Your task to perform on an android device: toggle improve location accuracy Image 0: 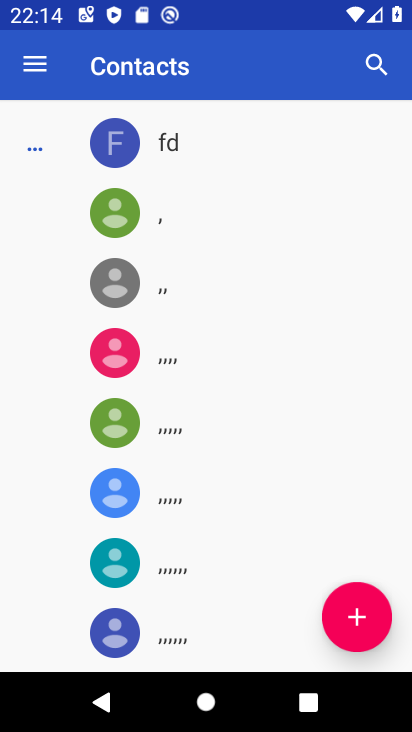
Step 0: press home button
Your task to perform on an android device: toggle improve location accuracy Image 1: 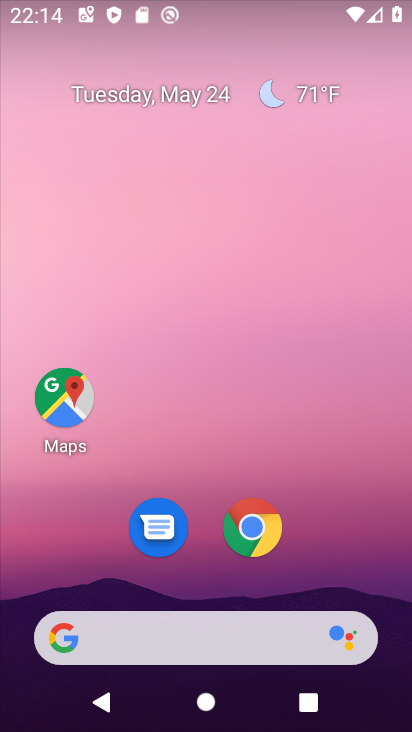
Step 1: drag from (187, 572) to (183, 15)
Your task to perform on an android device: toggle improve location accuracy Image 2: 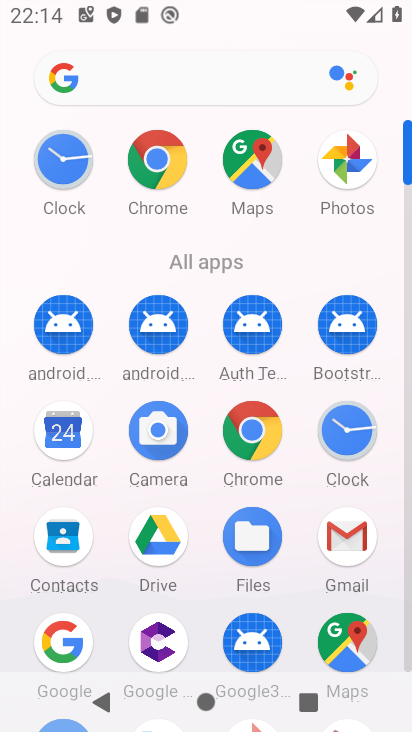
Step 2: drag from (289, 595) to (279, 142)
Your task to perform on an android device: toggle improve location accuracy Image 3: 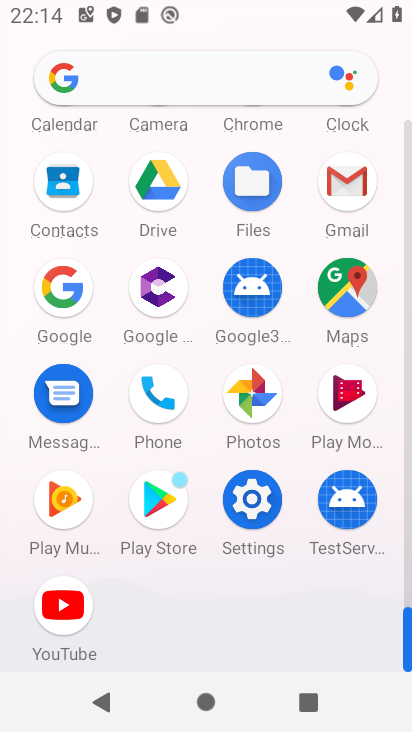
Step 3: click (243, 506)
Your task to perform on an android device: toggle improve location accuracy Image 4: 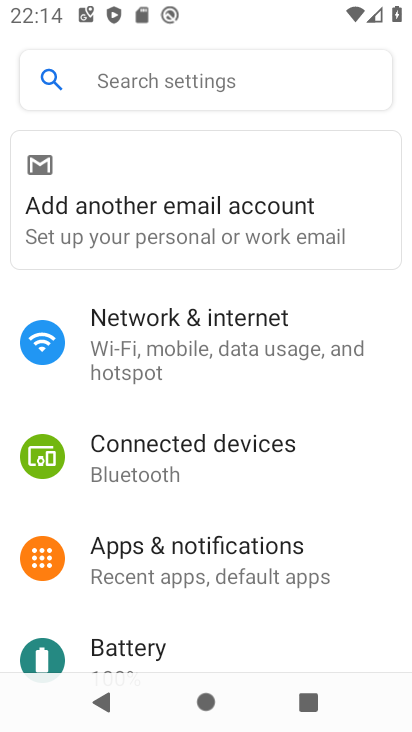
Step 4: drag from (215, 647) to (222, 207)
Your task to perform on an android device: toggle improve location accuracy Image 5: 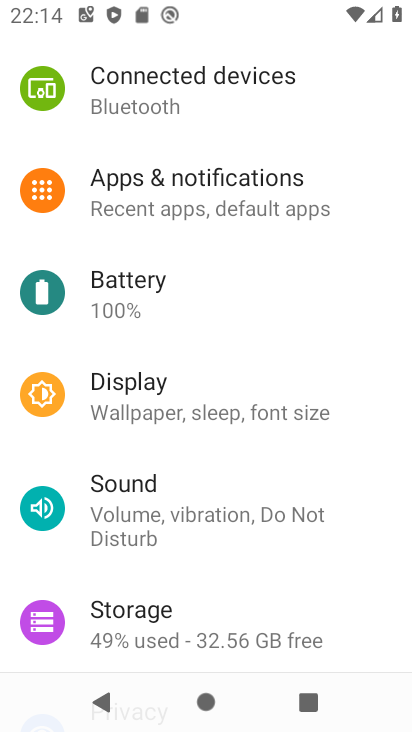
Step 5: drag from (298, 629) to (285, 166)
Your task to perform on an android device: toggle improve location accuracy Image 6: 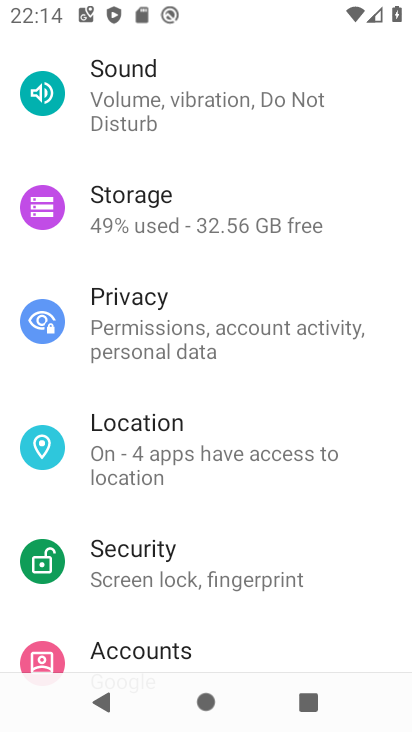
Step 6: click (282, 464)
Your task to perform on an android device: toggle improve location accuracy Image 7: 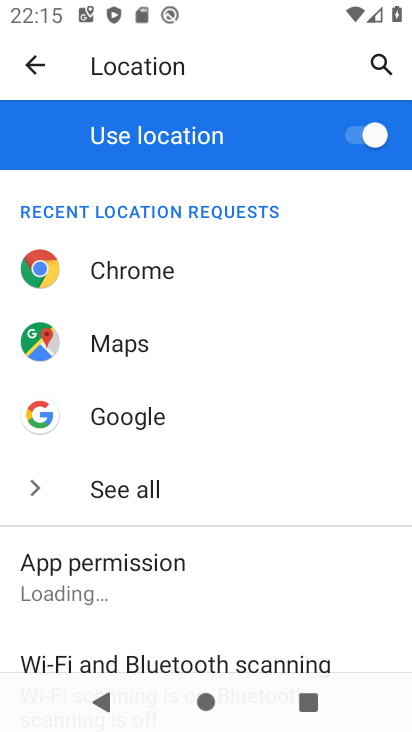
Step 7: drag from (370, 569) to (300, 120)
Your task to perform on an android device: toggle improve location accuracy Image 8: 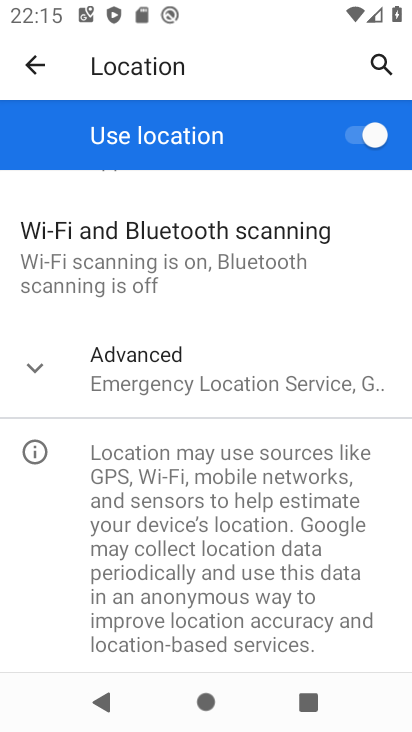
Step 8: click (224, 361)
Your task to perform on an android device: toggle improve location accuracy Image 9: 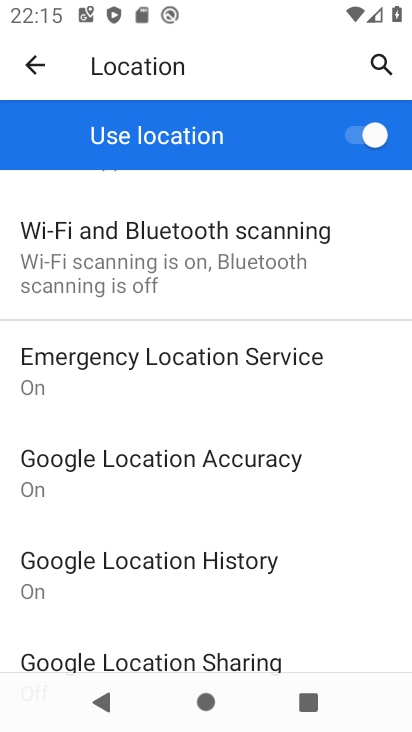
Step 9: click (230, 481)
Your task to perform on an android device: toggle improve location accuracy Image 10: 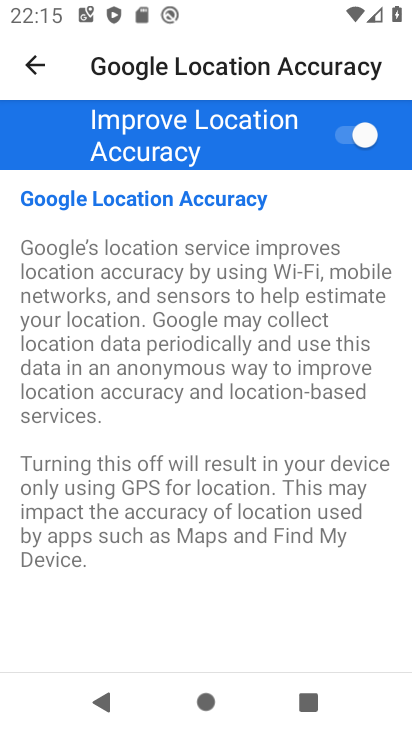
Step 10: click (344, 123)
Your task to perform on an android device: toggle improve location accuracy Image 11: 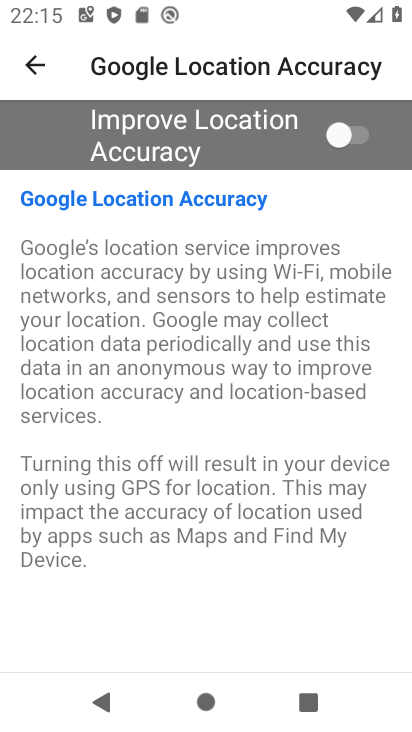
Step 11: task complete